Your task to perform on an android device: Go to Google maps Image 0: 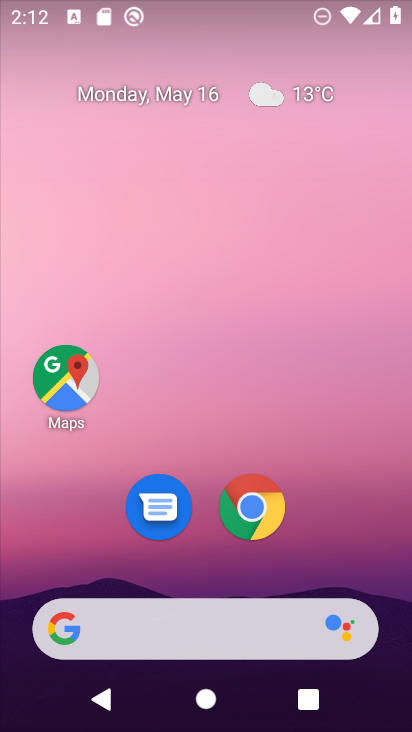
Step 0: drag from (206, 564) to (195, 185)
Your task to perform on an android device: Go to Google maps Image 1: 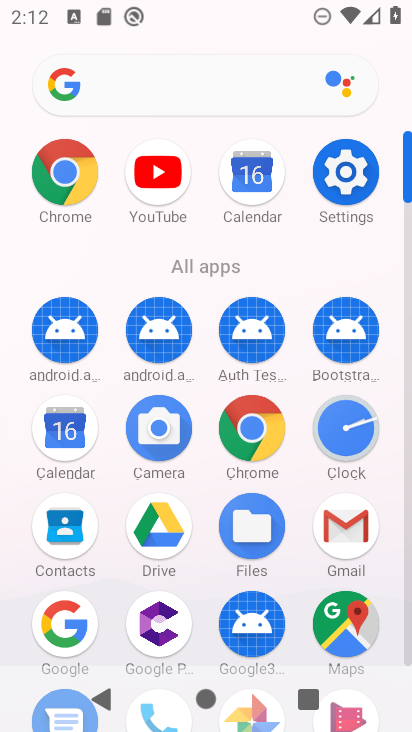
Step 1: click (346, 607)
Your task to perform on an android device: Go to Google maps Image 2: 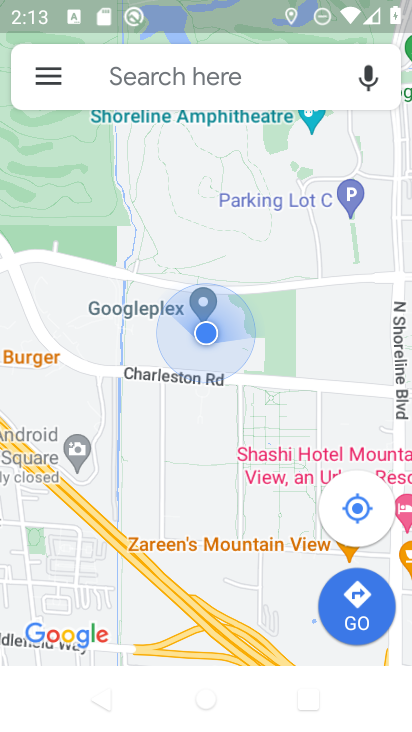
Step 2: task complete